Your task to perform on an android device: turn on airplane mode Image 0: 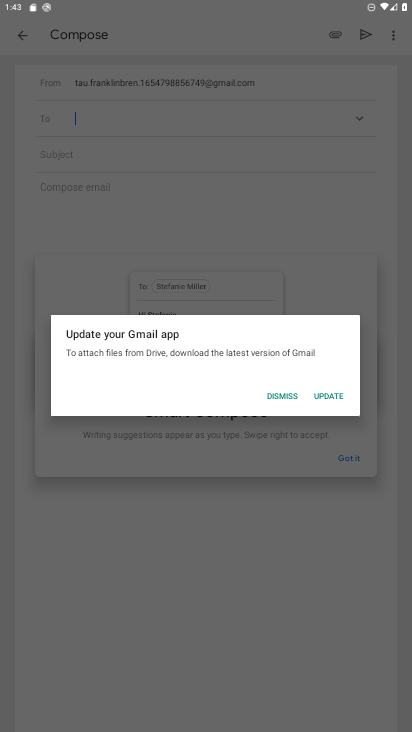
Step 0: press home button
Your task to perform on an android device: turn on airplane mode Image 1: 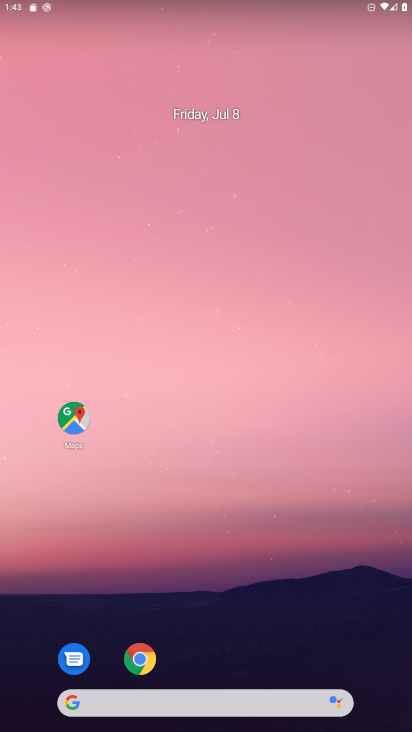
Step 1: drag from (214, 653) to (247, 123)
Your task to perform on an android device: turn on airplane mode Image 2: 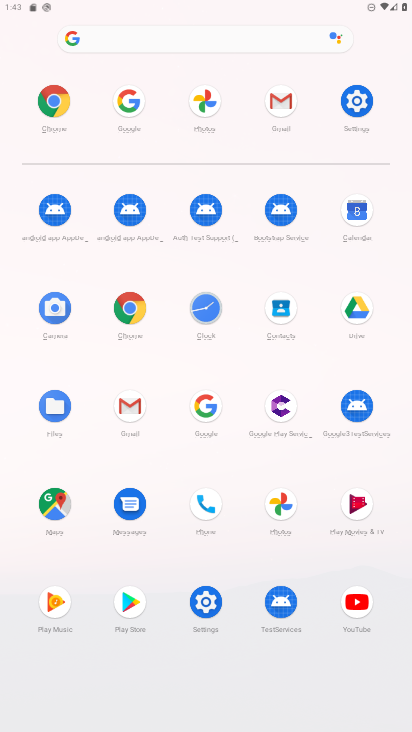
Step 2: click (358, 102)
Your task to perform on an android device: turn on airplane mode Image 3: 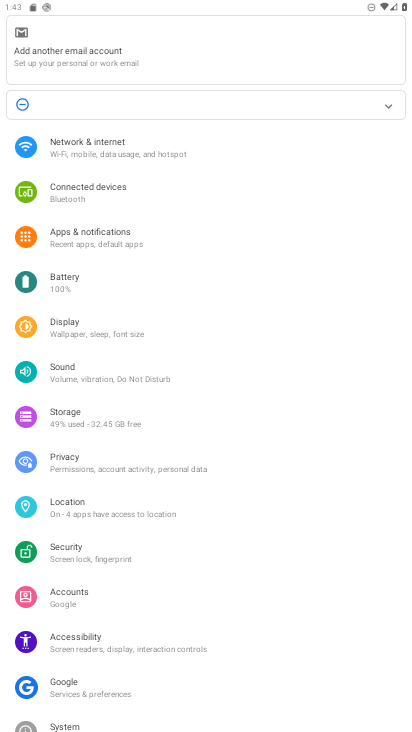
Step 3: click (93, 150)
Your task to perform on an android device: turn on airplane mode Image 4: 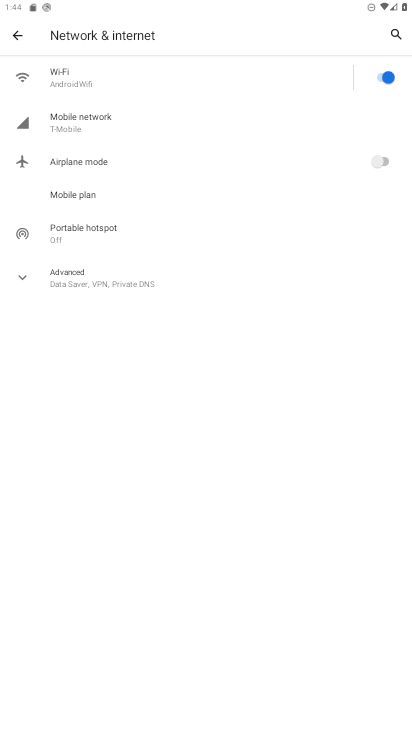
Step 4: click (380, 163)
Your task to perform on an android device: turn on airplane mode Image 5: 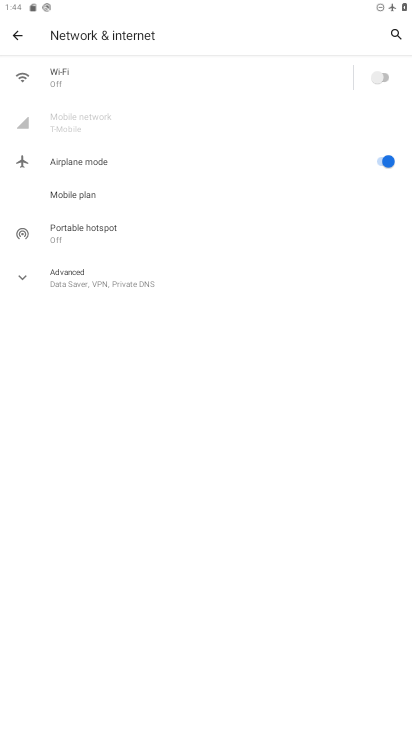
Step 5: task complete